Your task to perform on an android device: Open Amazon Image 0: 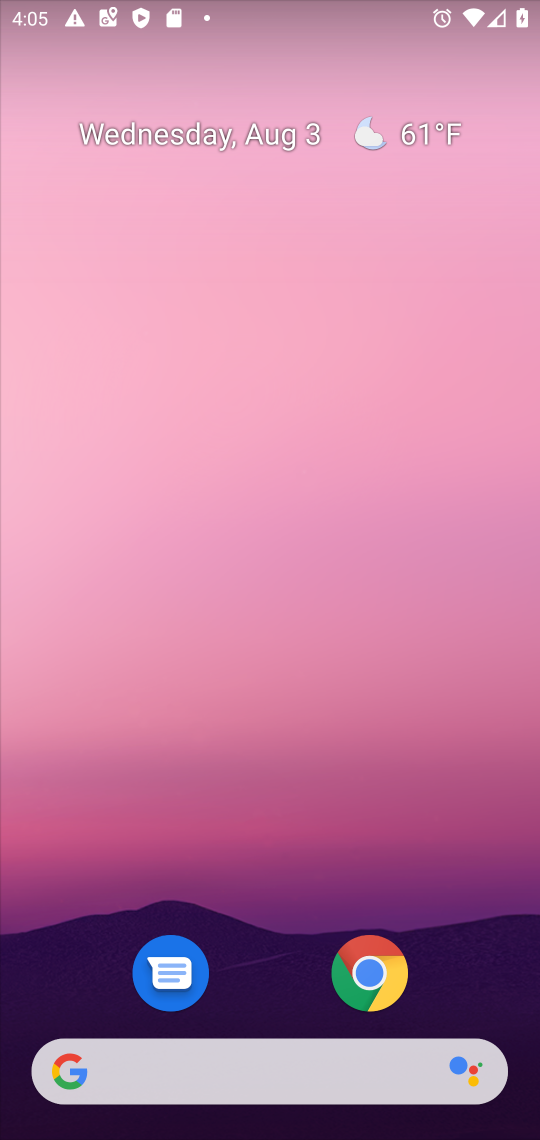
Step 0: click (380, 967)
Your task to perform on an android device: Open Amazon Image 1: 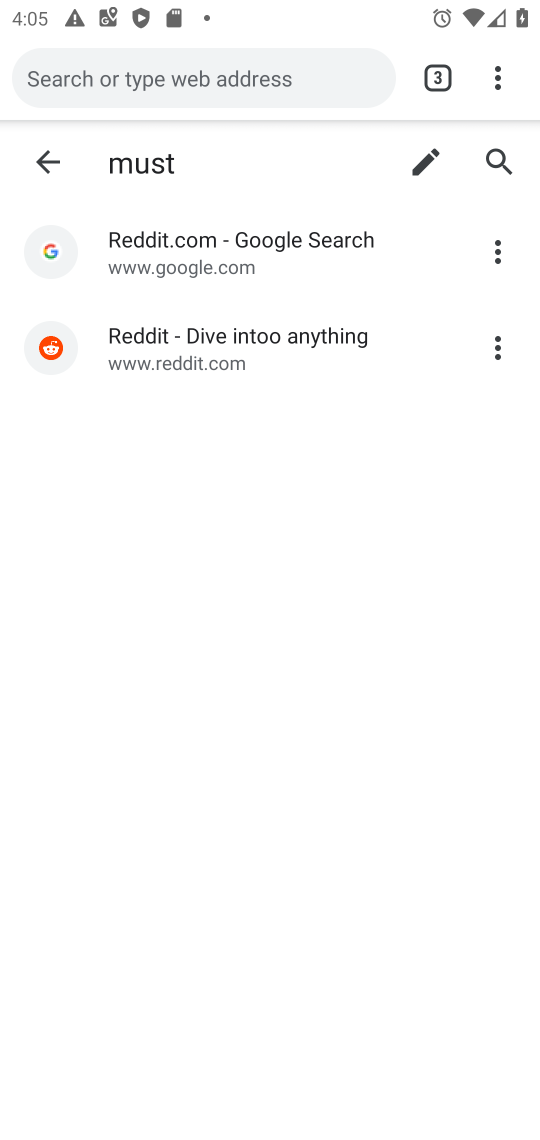
Step 1: click (487, 71)
Your task to perform on an android device: Open Amazon Image 2: 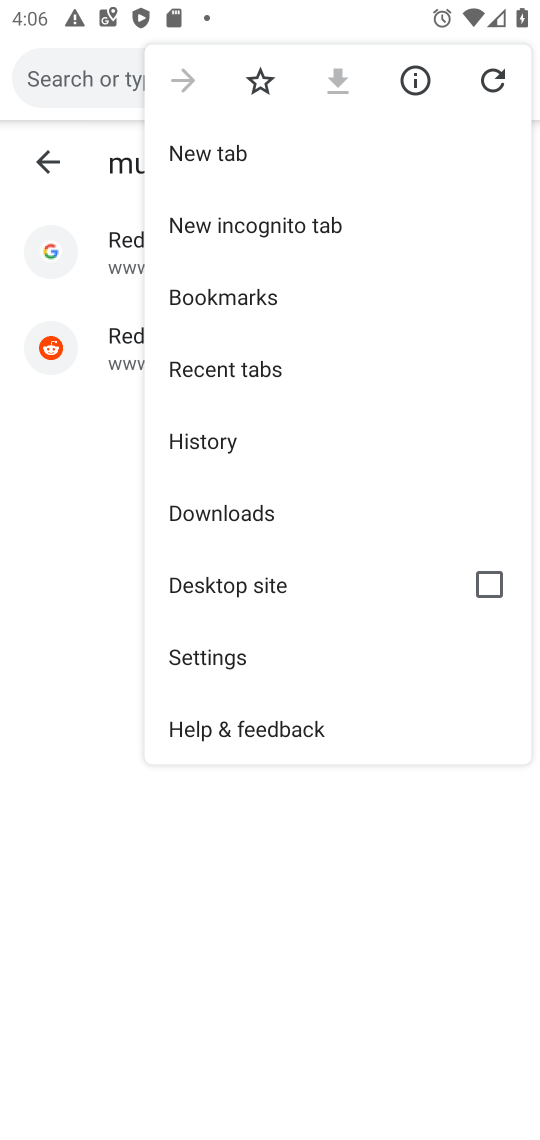
Step 2: click (367, 143)
Your task to perform on an android device: Open Amazon Image 3: 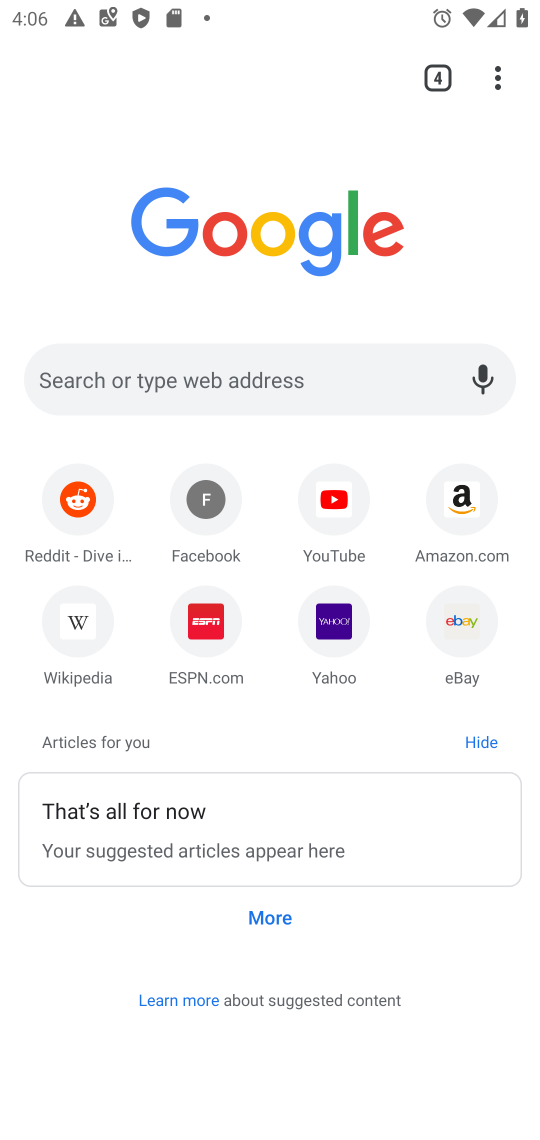
Step 3: click (464, 486)
Your task to perform on an android device: Open Amazon Image 4: 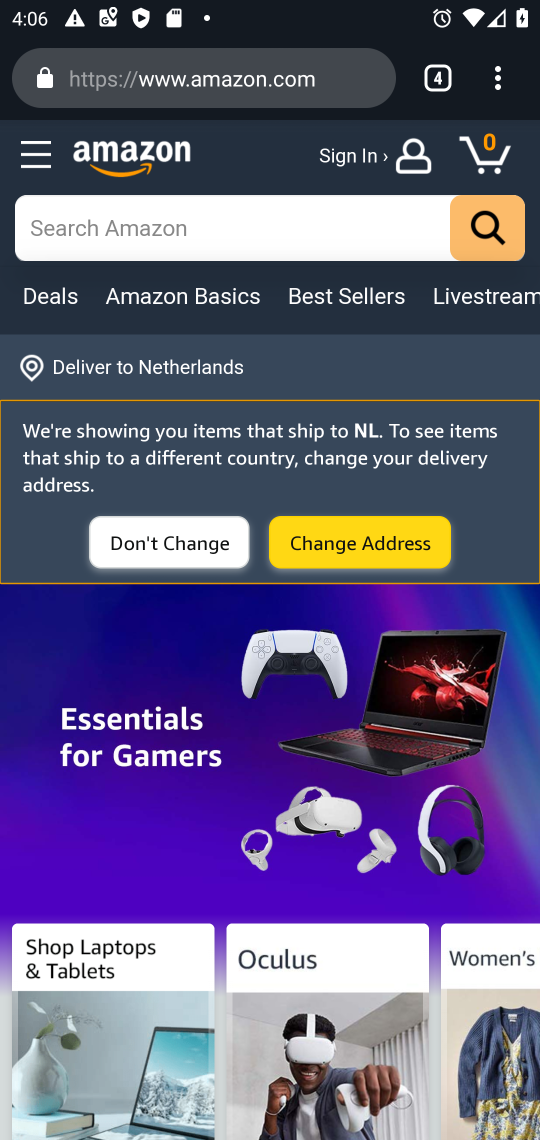
Step 4: task complete